Your task to perform on an android device: see creations saved in the google photos Image 0: 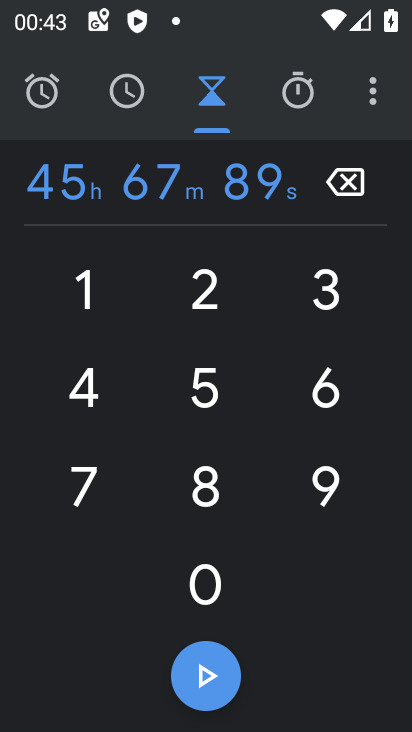
Step 0: press home button
Your task to perform on an android device: see creations saved in the google photos Image 1: 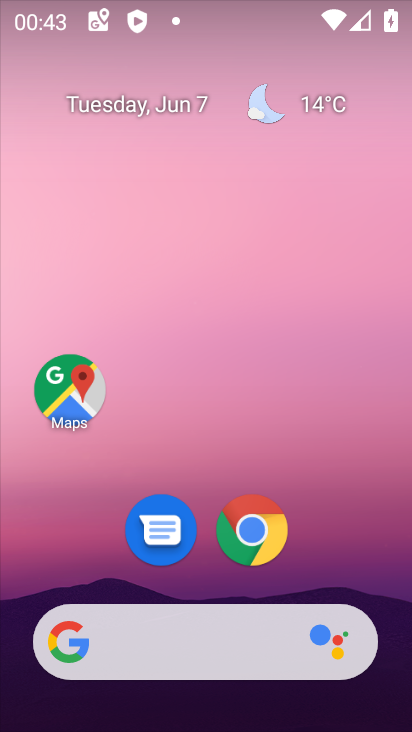
Step 1: drag from (328, 567) to (293, 223)
Your task to perform on an android device: see creations saved in the google photos Image 2: 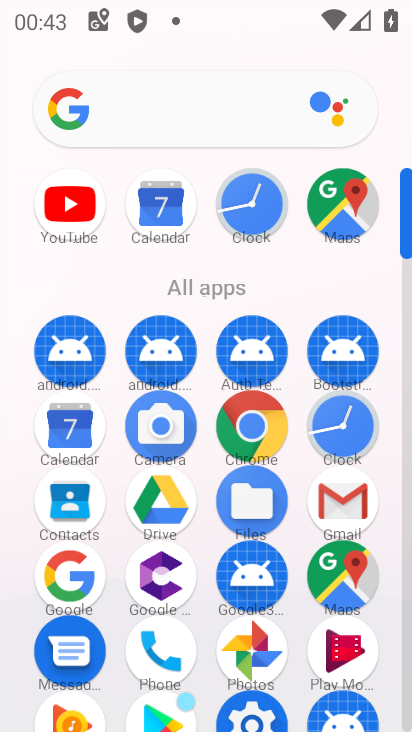
Step 2: click (262, 637)
Your task to perform on an android device: see creations saved in the google photos Image 3: 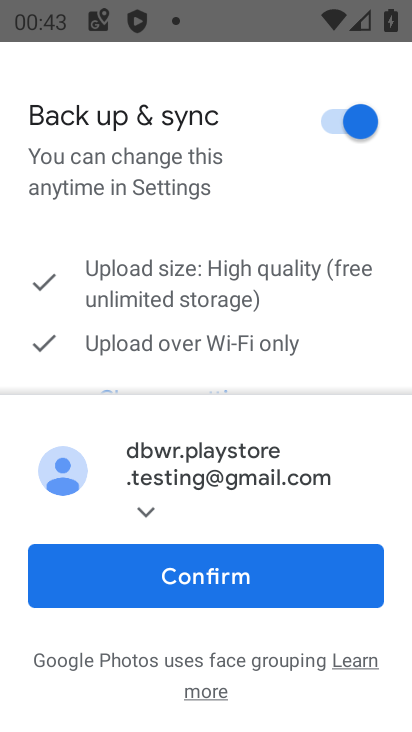
Step 3: click (219, 569)
Your task to perform on an android device: see creations saved in the google photos Image 4: 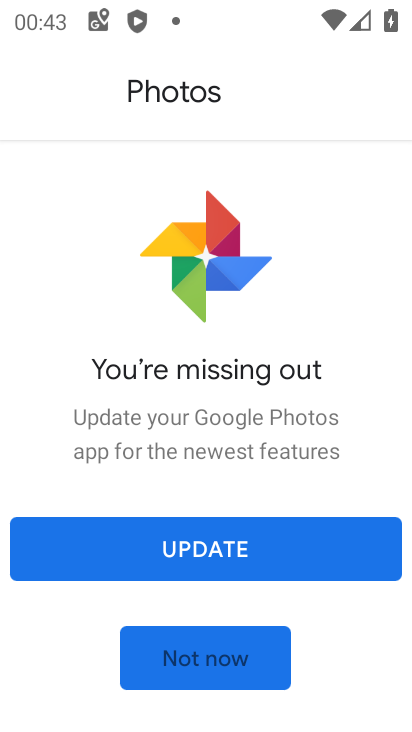
Step 4: click (242, 677)
Your task to perform on an android device: see creations saved in the google photos Image 5: 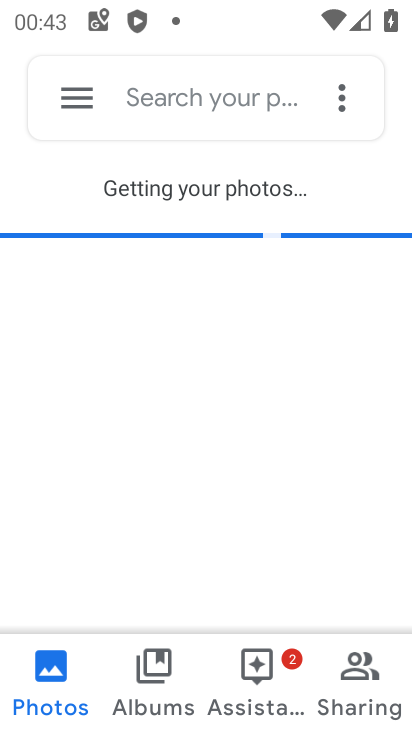
Step 5: press back button
Your task to perform on an android device: see creations saved in the google photos Image 6: 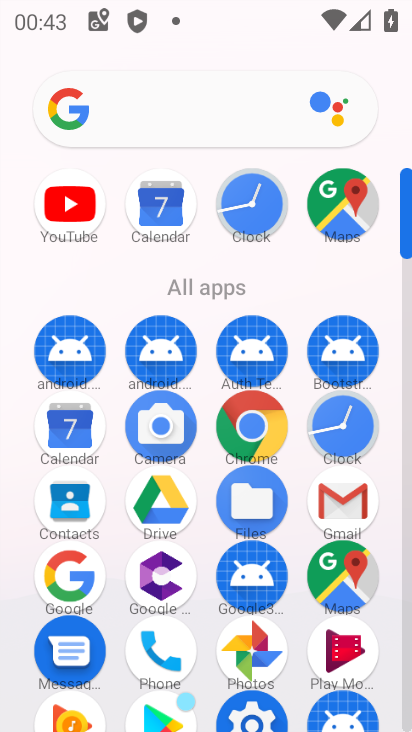
Step 6: click (244, 637)
Your task to perform on an android device: see creations saved in the google photos Image 7: 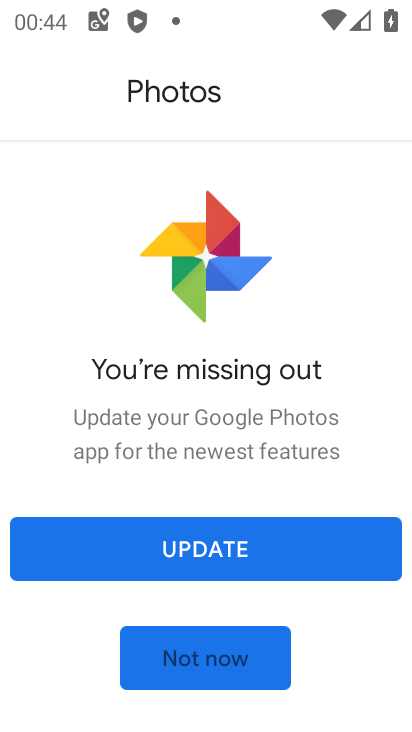
Step 7: click (203, 656)
Your task to perform on an android device: see creations saved in the google photos Image 8: 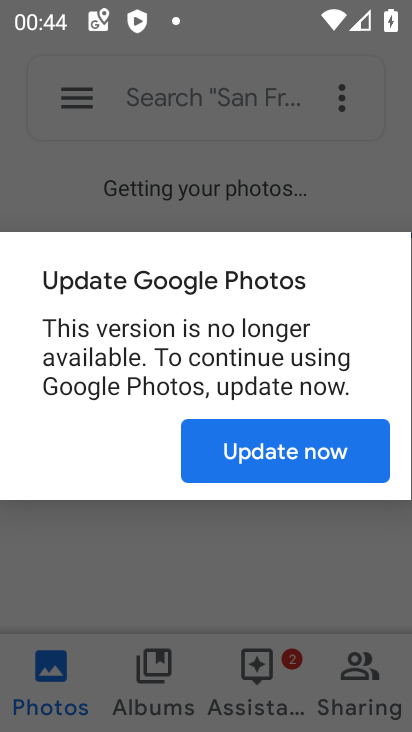
Step 8: press back button
Your task to perform on an android device: see creations saved in the google photos Image 9: 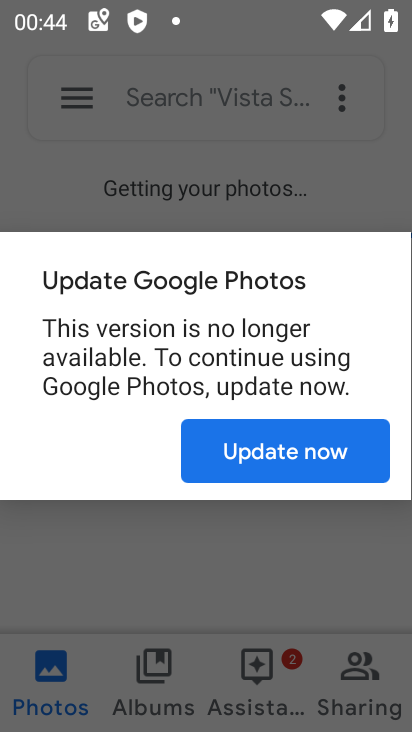
Step 9: click (238, 446)
Your task to perform on an android device: see creations saved in the google photos Image 10: 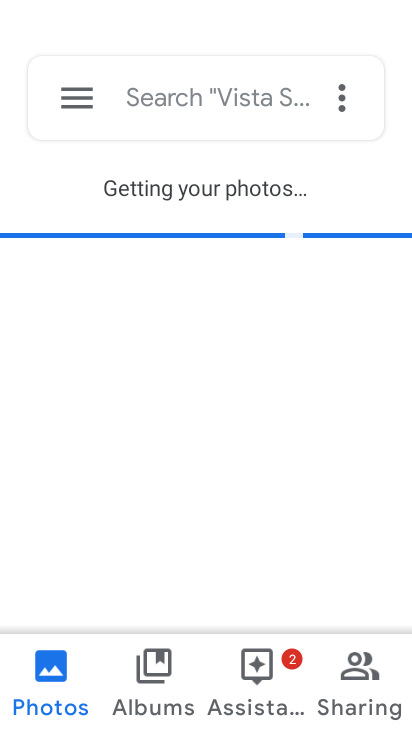
Step 10: click (161, 674)
Your task to perform on an android device: see creations saved in the google photos Image 11: 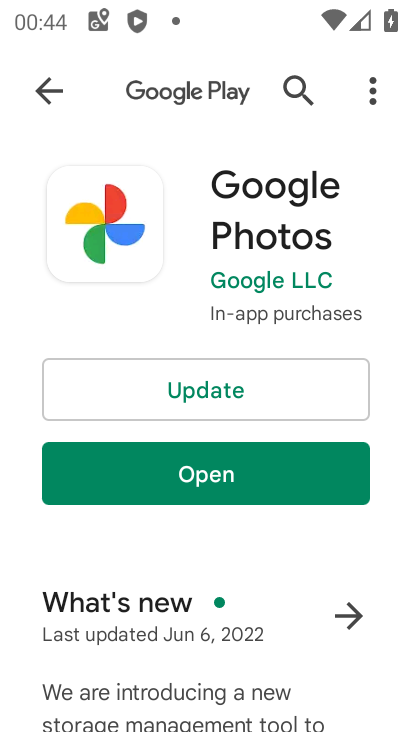
Step 11: press back button
Your task to perform on an android device: see creations saved in the google photos Image 12: 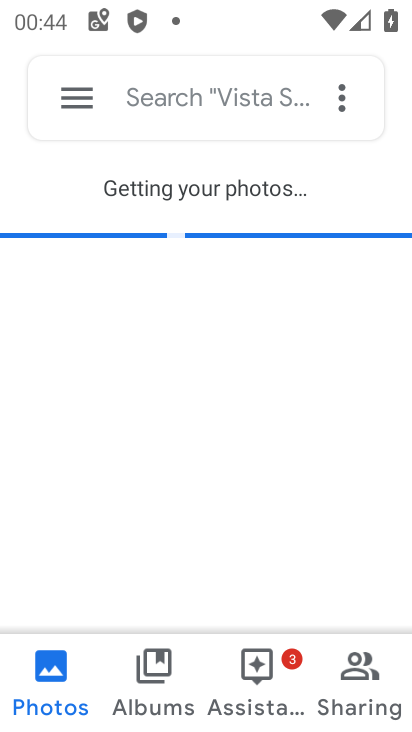
Step 12: click (165, 654)
Your task to perform on an android device: see creations saved in the google photos Image 13: 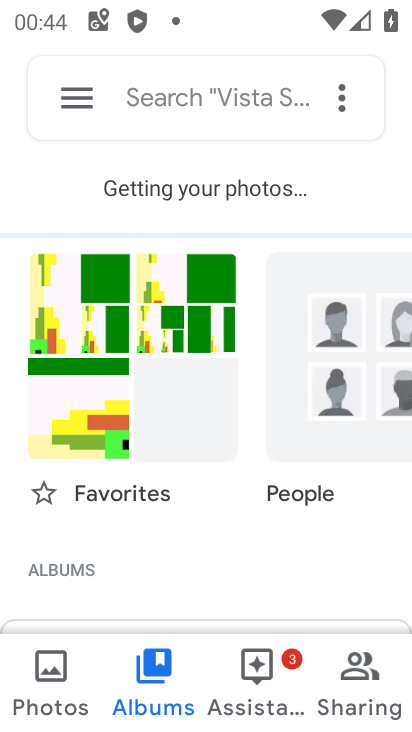
Step 13: click (81, 288)
Your task to perform on an android device: see creations saved in the google photos Image 14: 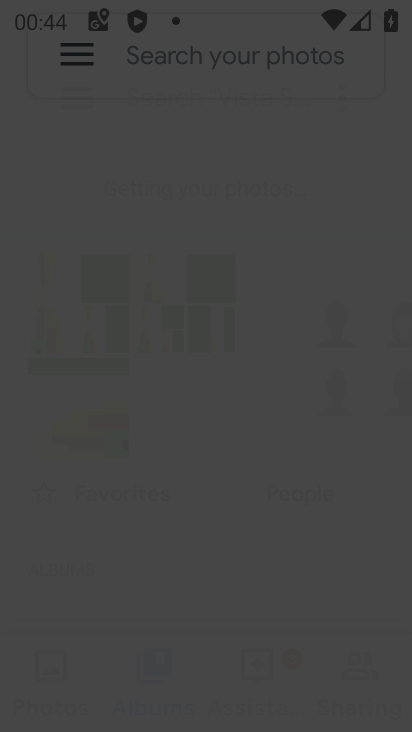
Step 14: task complete